Your task to perform on an android device: Open eBay Image 0: 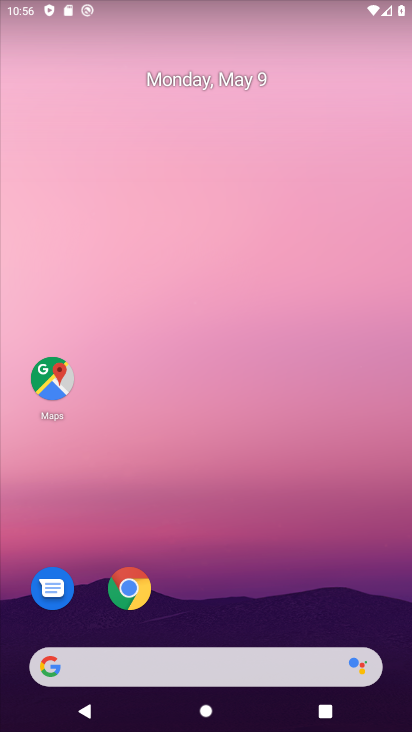
Step 0: click (130, 580)
Your task to perform on an android device: Open eBay Image 1: 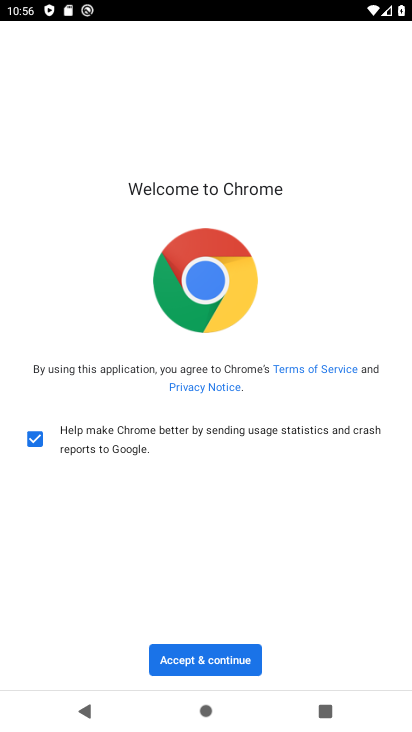
Step 1: click (175, 656)
Your task to perform on an android device: Open eBay Image 2: 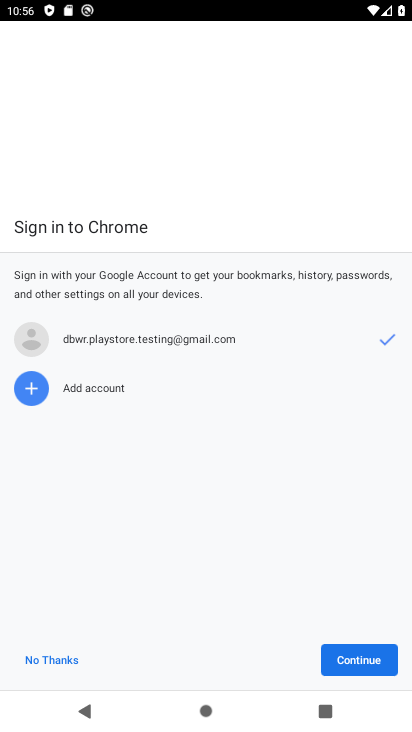
Step 2: click (343, 663)
Your task to perform on an android device: Open eBay Image 3: 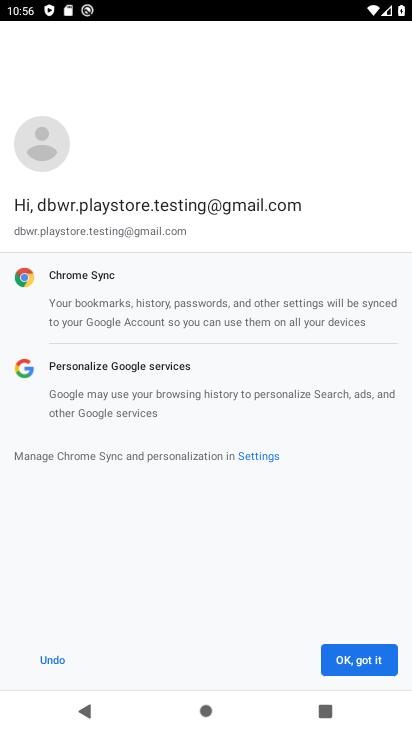
Step 3: click (353, 656)
Your task to perform on an android device: Open eBay Image 4: 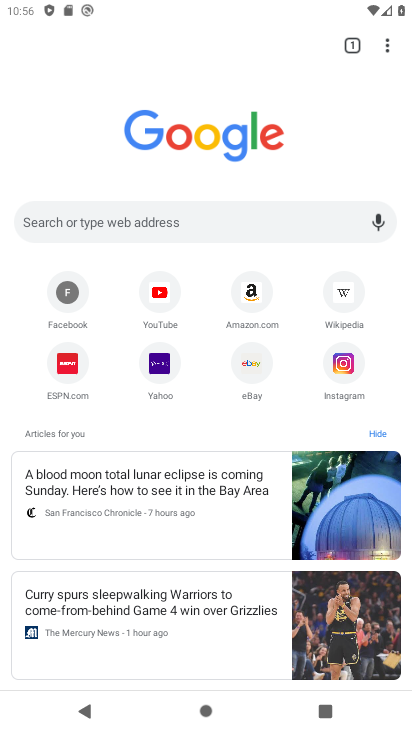
Step 4: click (260, 365)
Your task to perform on an android device: Open eBay Image 5: 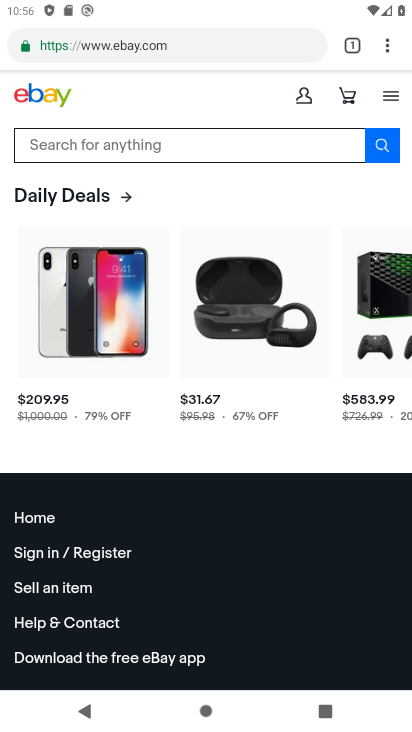
Step 5: task complete